Your task to perform on an android device: snooze an email in the gmail app Image 0: 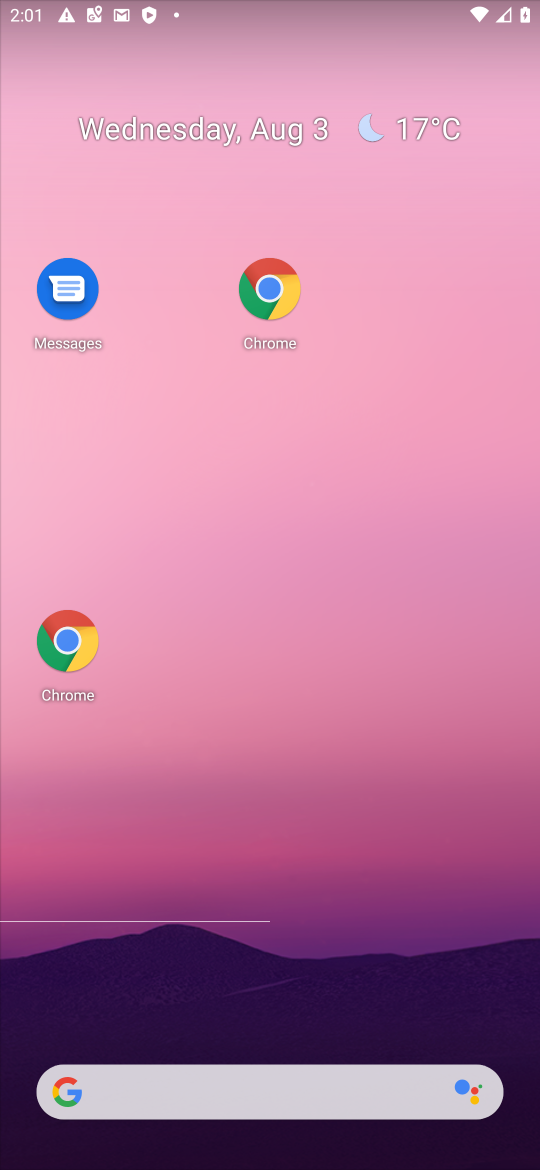
Step 0: drag from (374, 952) to (397, 155)
Your task to perform on an android device: snooze an email in the gmail app Image 1: 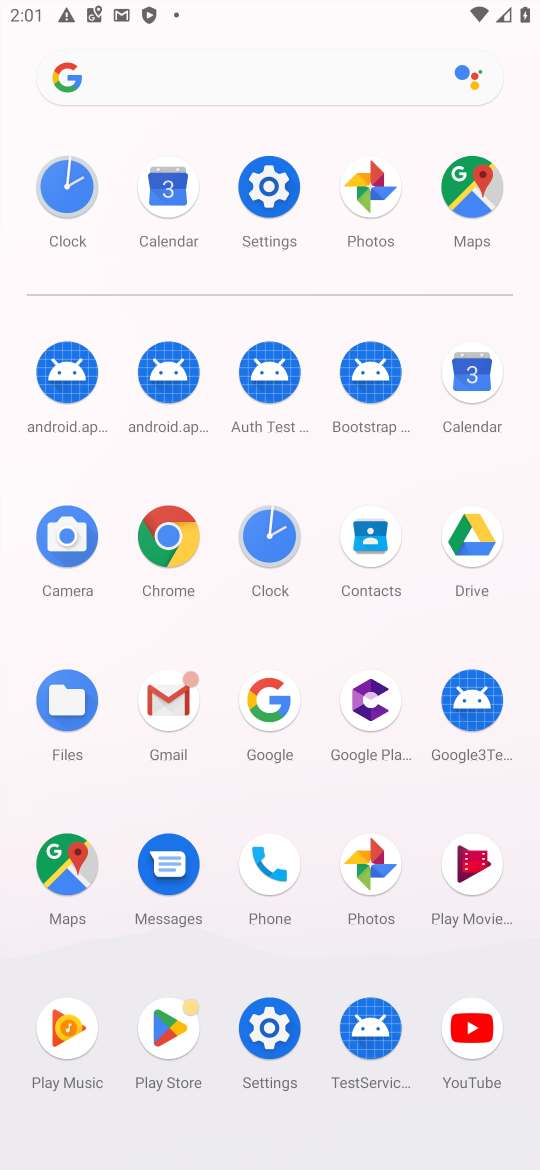
Step 1: click (149, 743)
Your task to perform on an android device: snooze an email in the gmail app Image 2: 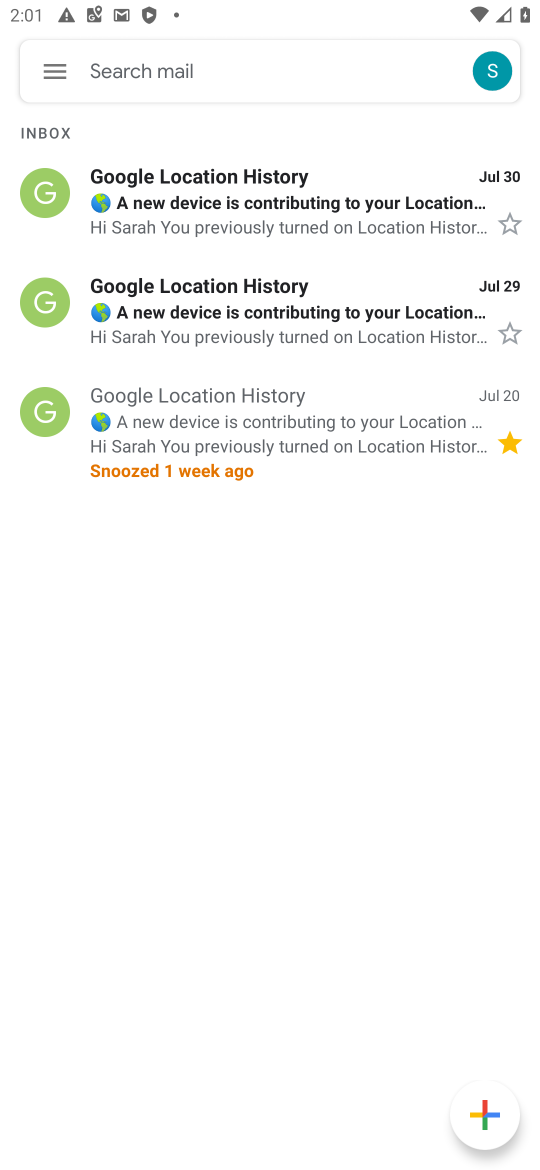
Step 2: click (343, 310)
Your task to perform on an android device: snooze an email in the gmail app Image 3: 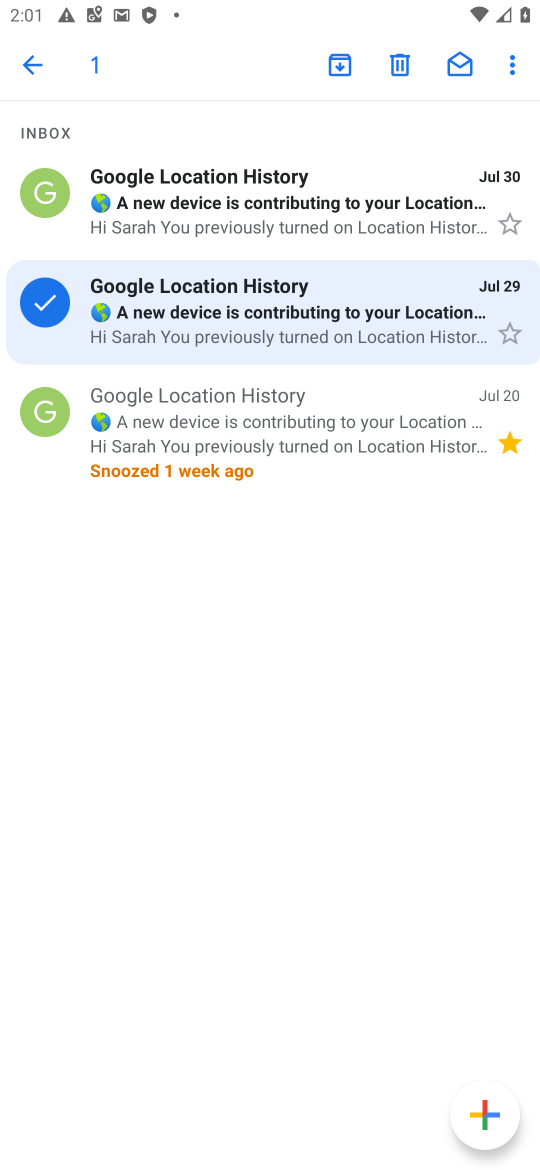
Step 3: click (505, 39)
Your task to perform on an android device: snooze an email in the gmail app Image 4: 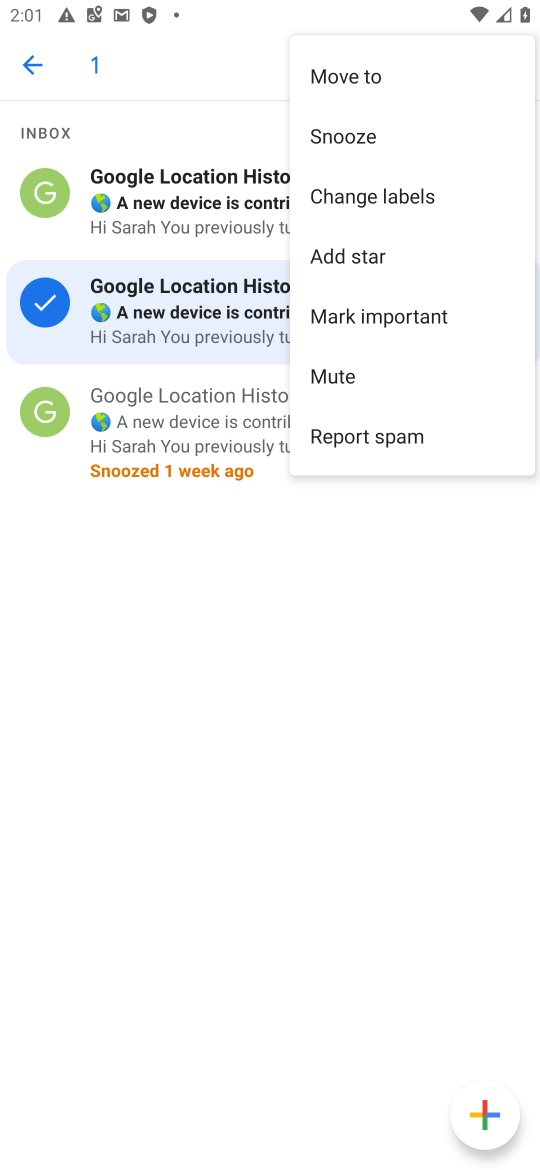
Step 4: click (358, 131)
Your task to perform on an android device: snooze an email in the gmail app Image 5: 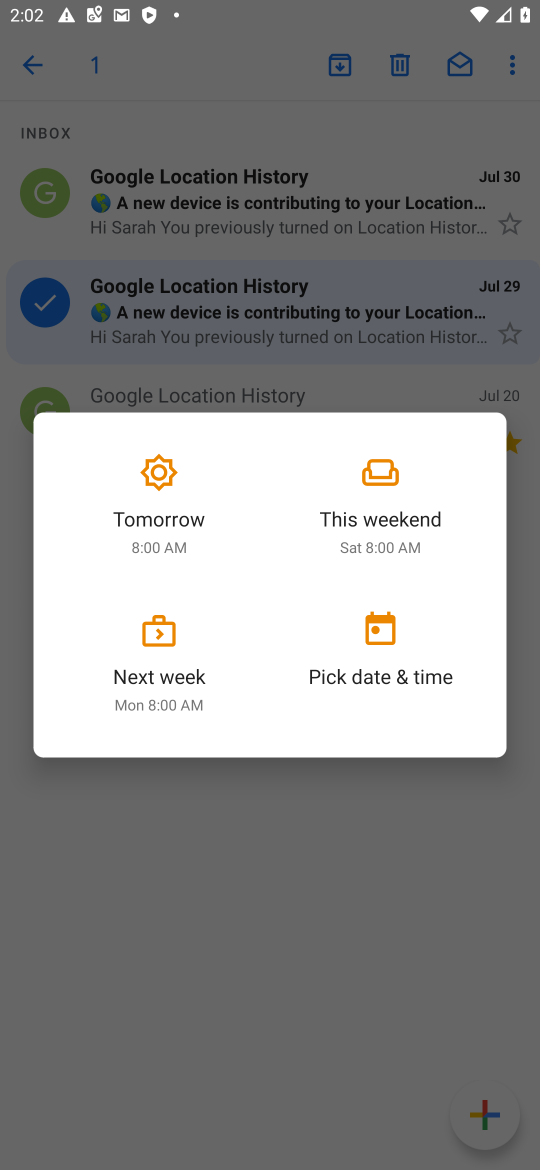
Step 5: click (358, 491)
Your task to perform on an android device: snooze an email in the gmail app Image 6: 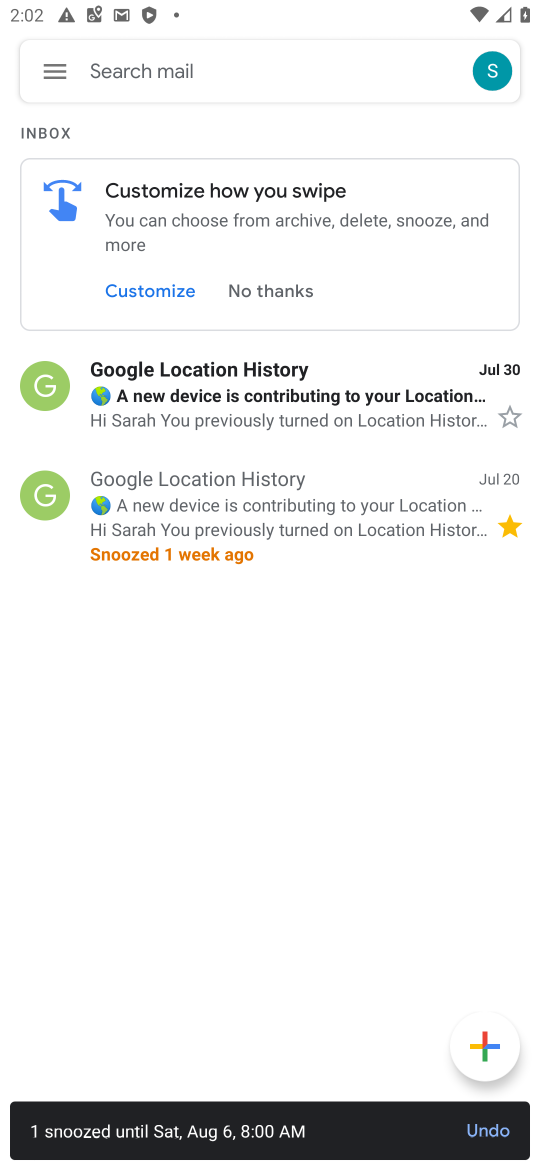
Step 6: task complete